Your task to perform on an android device: refresh tabs in the chrome app Image 0: 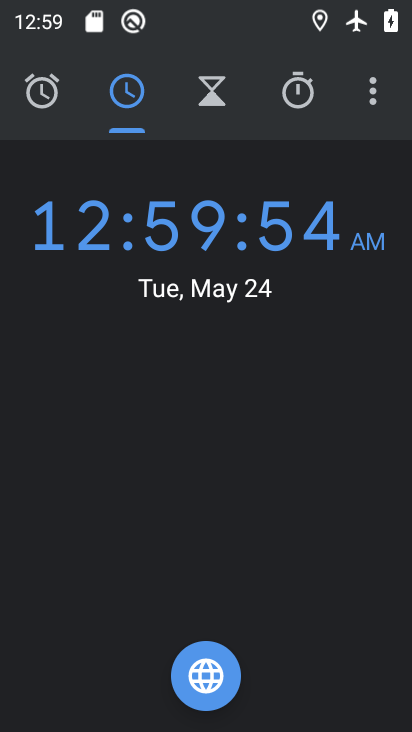
Step 0: press home button
Your task to perform on an android device: refresh tabs in the chrome app Image 1: 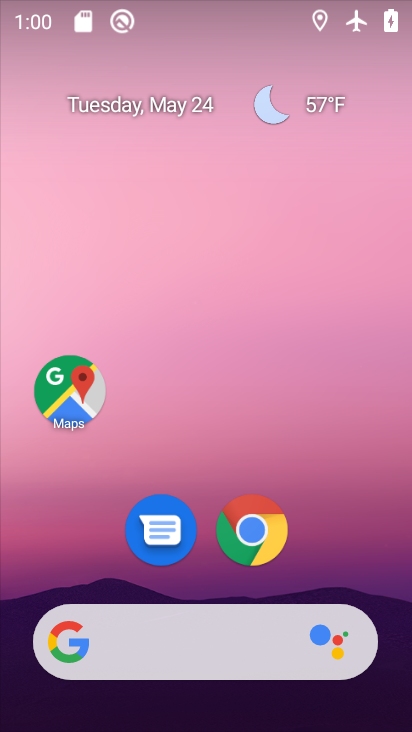
Step 1: click (257, 525)
Your task to perform on an android device: refresh tabs in the chrome app Image 2: 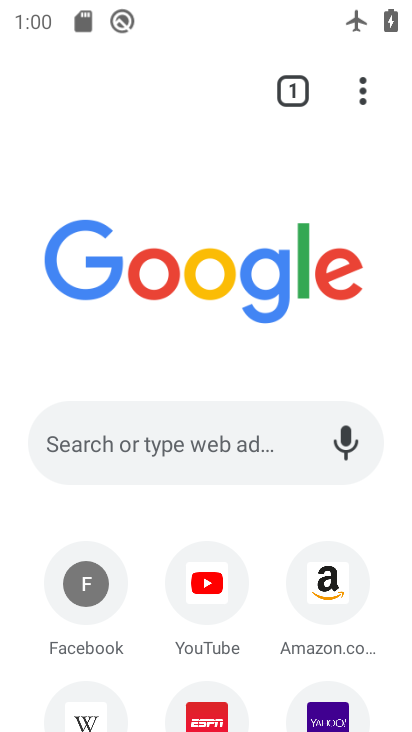
Step 2: click (352, 85)
Your task to perform on an android device: refresh tabs in the chrome app Image 3: 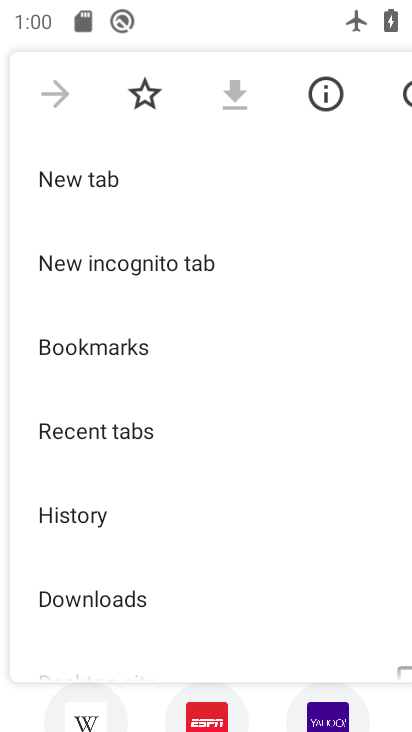
Step 3: click (400, 95)
Your task to perform on an android device: refresh tabs in the chrome app Image 4: 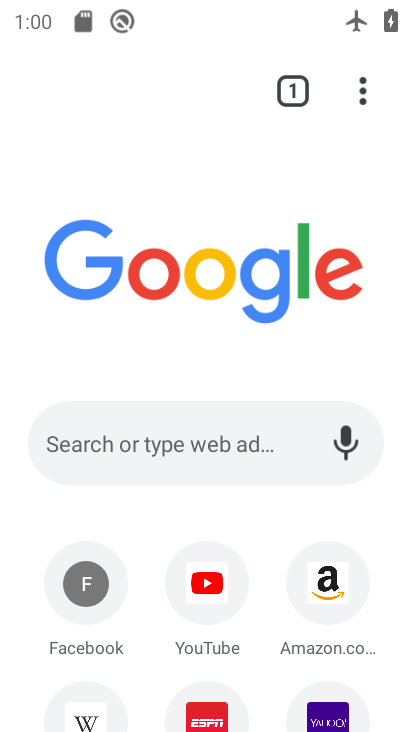
Step 4: task complete